Your task to perform on an android device: Open Google Image 0: 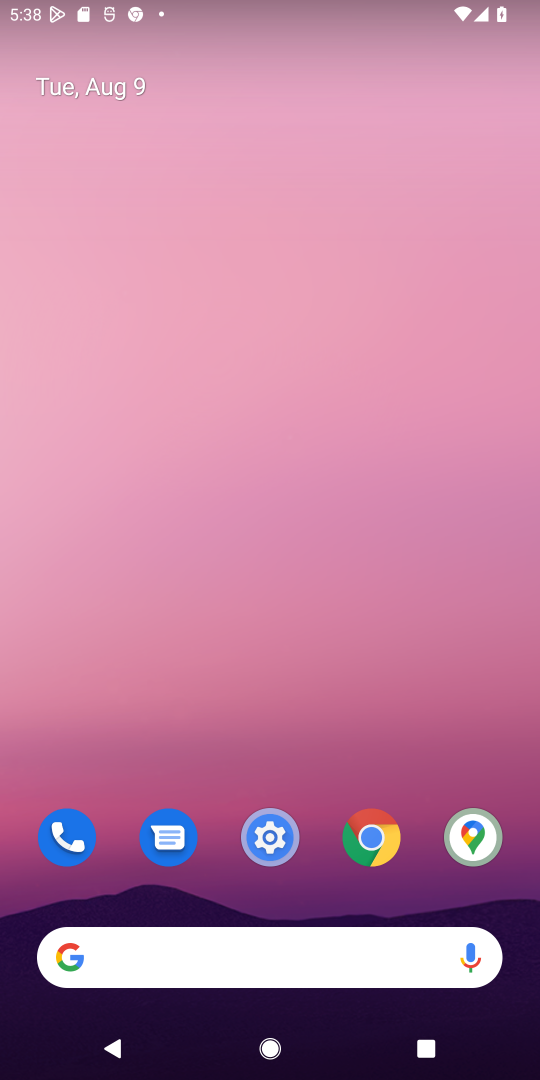
Step 0: drag from (193, 831) to (363, 12)
Your task to perform on an android device: Open Google Image 1: 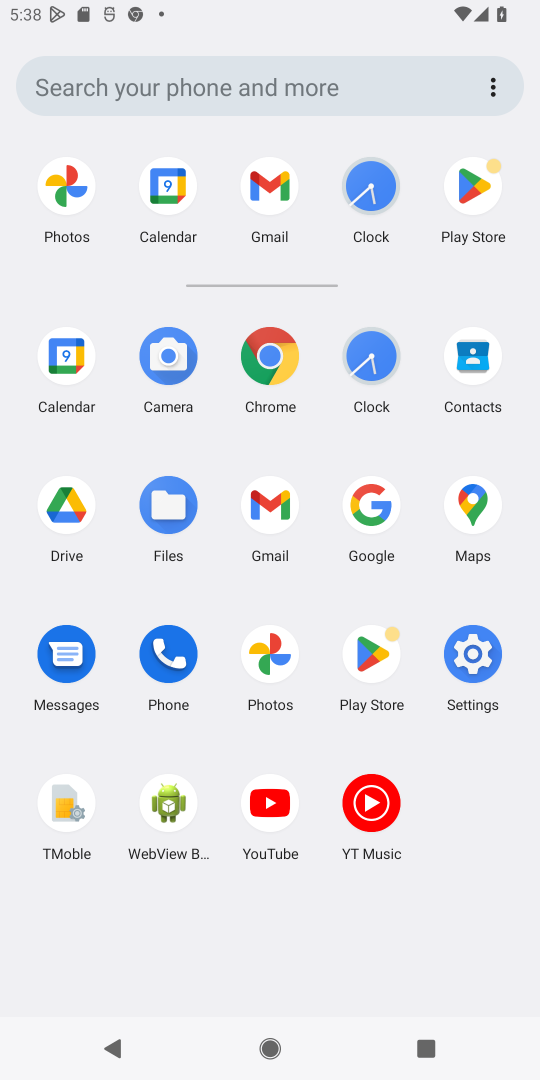
Step 1: click (358, 508)
Your task to perform on an android device: Open Google Image 2: 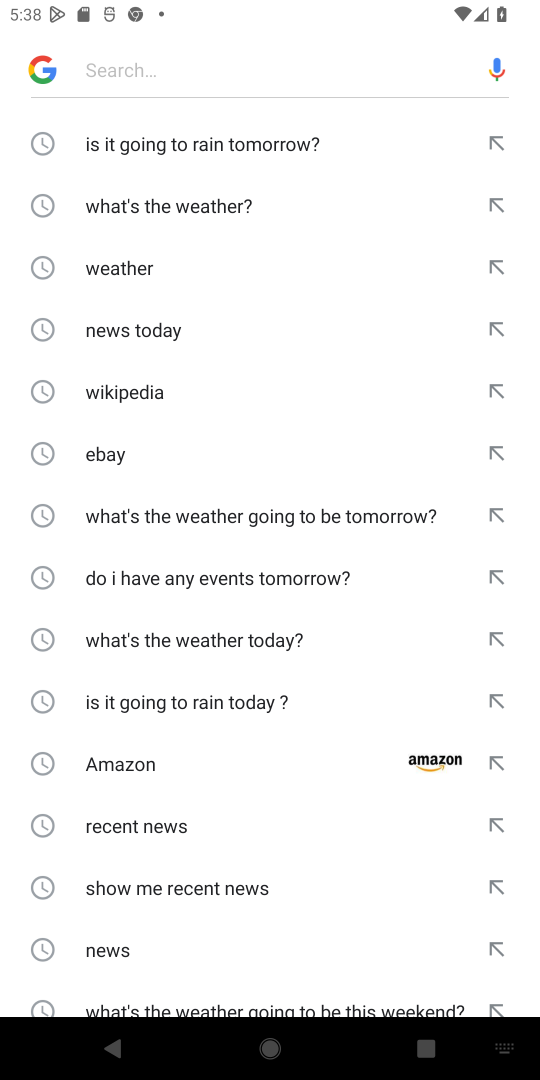
Step 2: task complete